Your task to perform on an android device: turn off airplane mode Image 0: 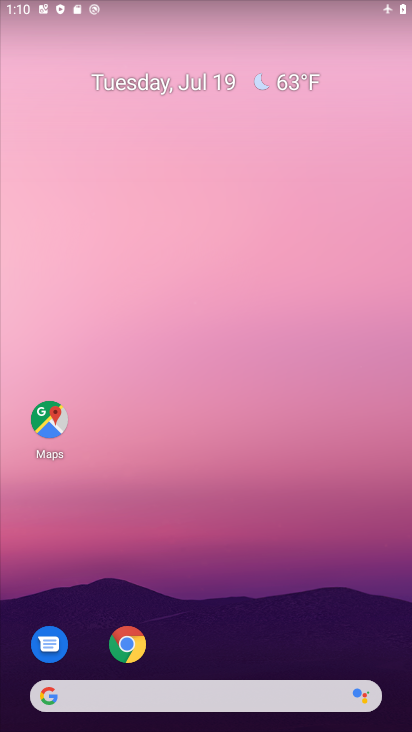
Step 0: drag from (235, 728) to (208, 178)
Your task to perform on an android device: turn off airplane mode Image 1: 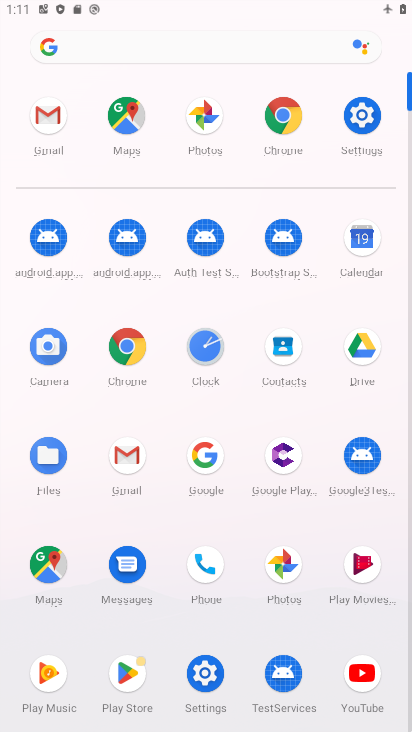
Step 1: click (368, 111)
Your task to perform on an android device: turn off airplane mode Image 2: 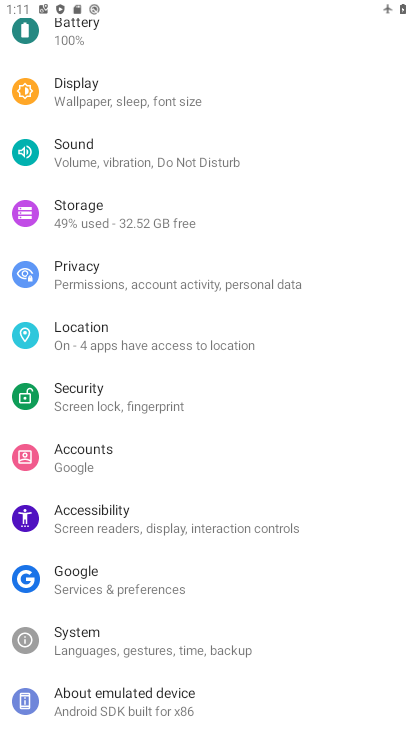
Step 2: drag from (162, 136) to (183, 525)
Your task to perform on an android device: turn off airplane mode Image 3: 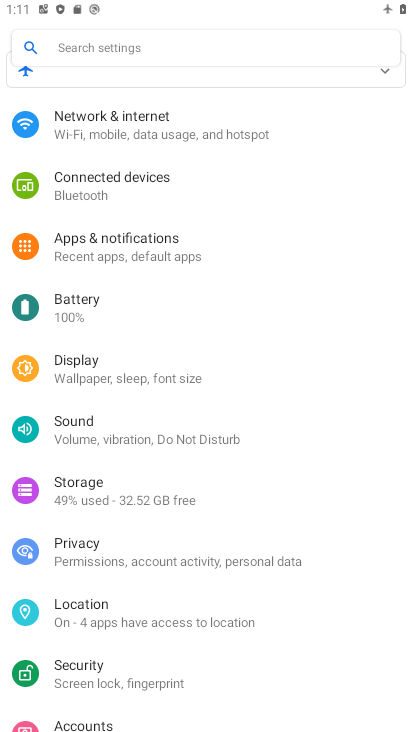
Step 3: click (102, 133)
Your task to perform on an android device: turn off airplane mode Image 4: 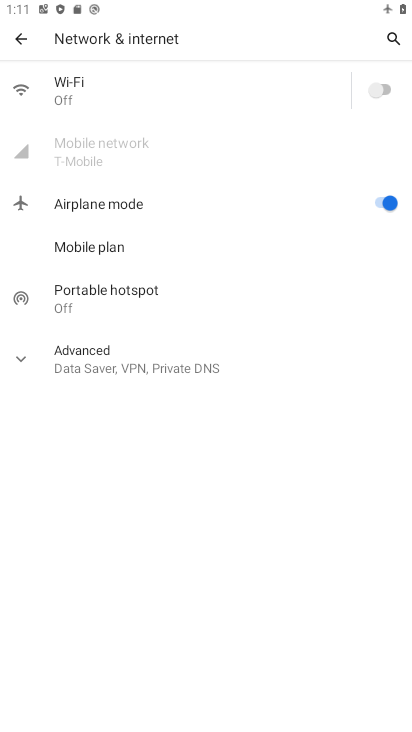
Step 4: click (382, 202)
Your task to perform on an android device: turn off airplane mode Image 5: 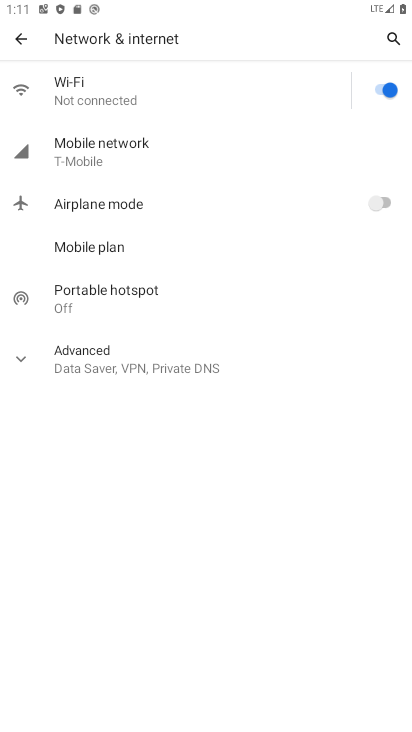
Step 5: task complete